Your task to perform on an android device: turn off javascript in the chrome app Image 0: 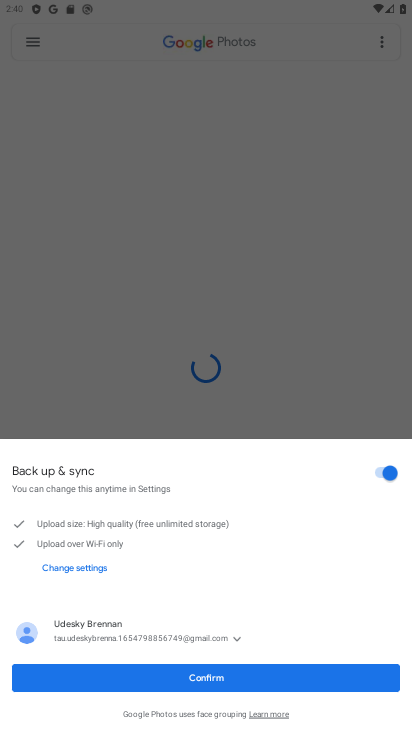
Step 0: press home button
Your task to perform on an android device: turn off javascript in the chrome app Image 1: 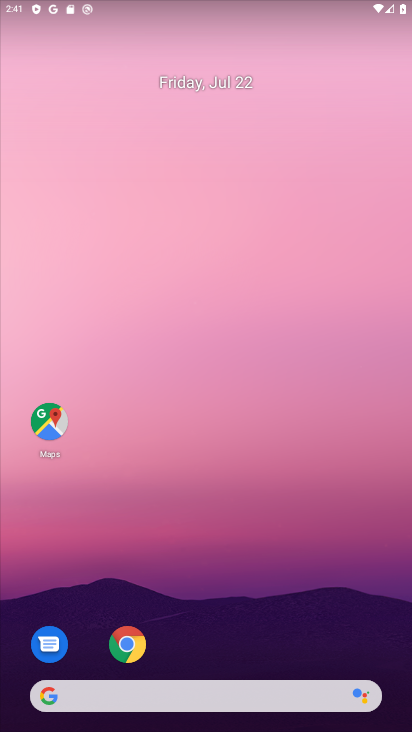
Step 1: click (130, 651)
Your task to perform on an android device: turn off javascript in the chrome app Image 2: 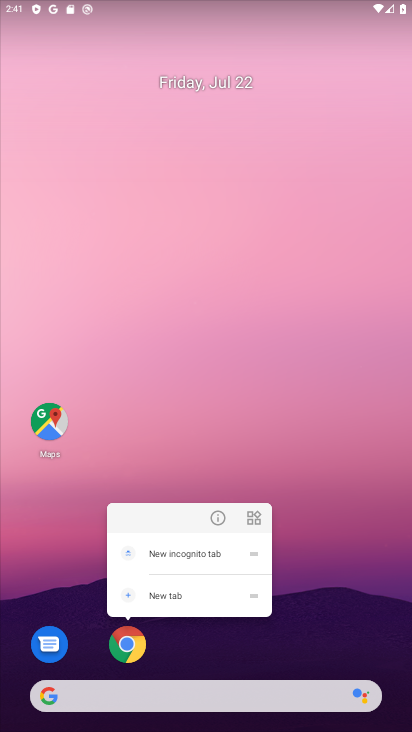
Step 2: click (130, 651)
Your task to perform on an android device: turn off javascript in the chrome app Image 3: 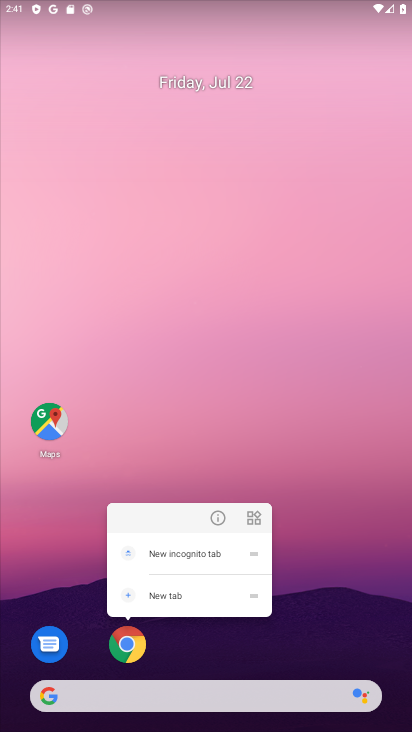
Step 3: click (130, 647)
Your task to perform on an android device: turn off javascript in the chrome app Image 4: 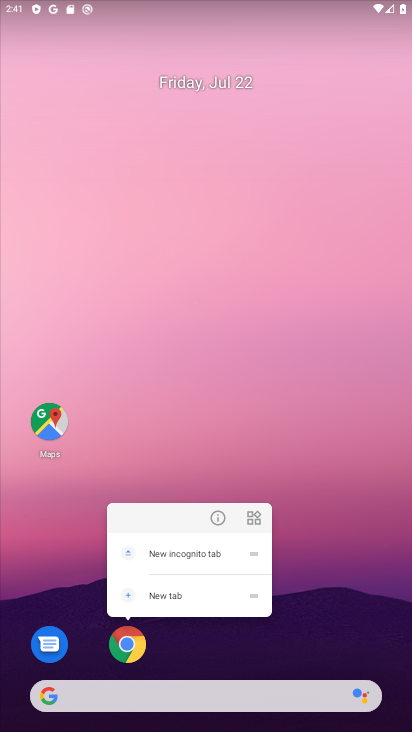
Step 4: click (130, 647)
Your task to perform on an android device: turn off javascript in the chrome app Image 5: 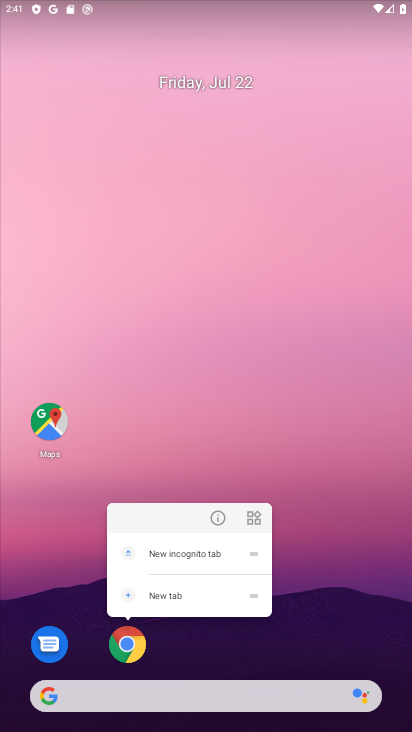
Step 5: click (125, 646)
Your task to perform on an android device: turn off javascript in the chrome app Image 6: 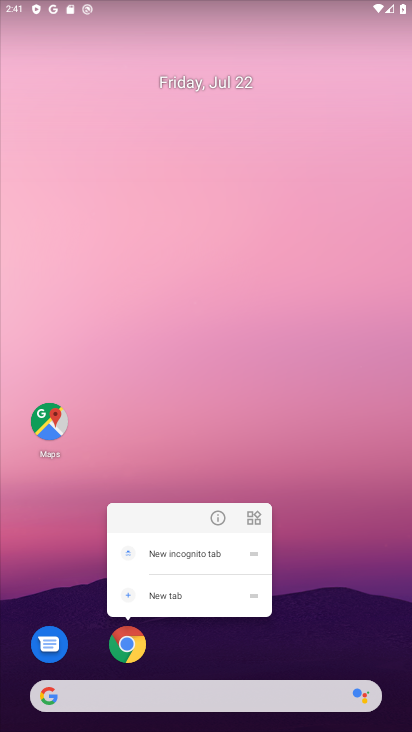
Step 6: click (135, 651)
Your task to perform on an android device: turn off javascript in the chrome app Image 7: 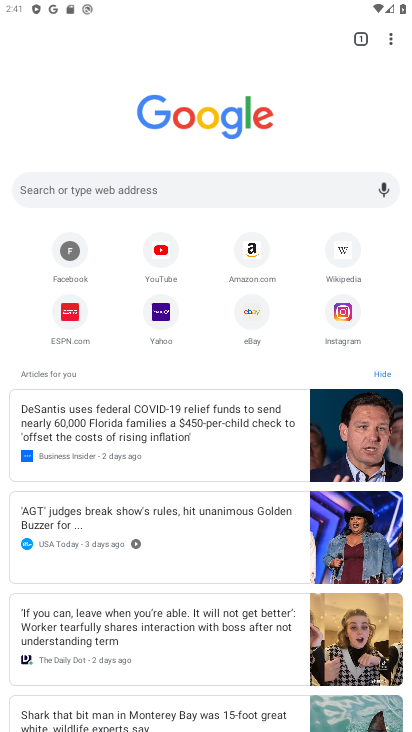
Step 7: click (394, 37)
Your task to perform on an android device: turn off javascript in the chrome app Image 8: 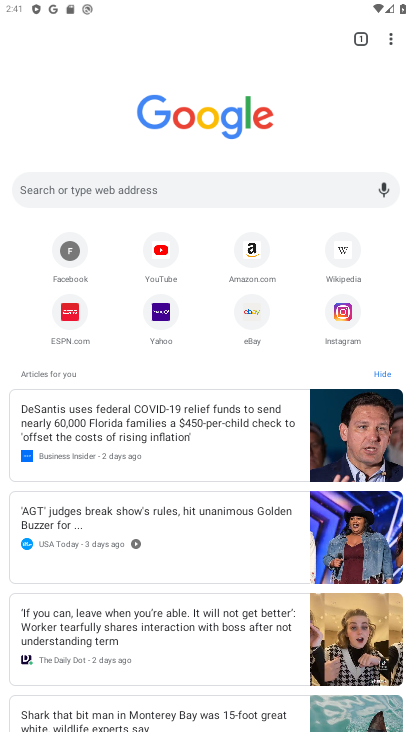
Step 8: click (396, 46)
Your task to perform on an android device: turn off javascript in the chrome app Image 9: 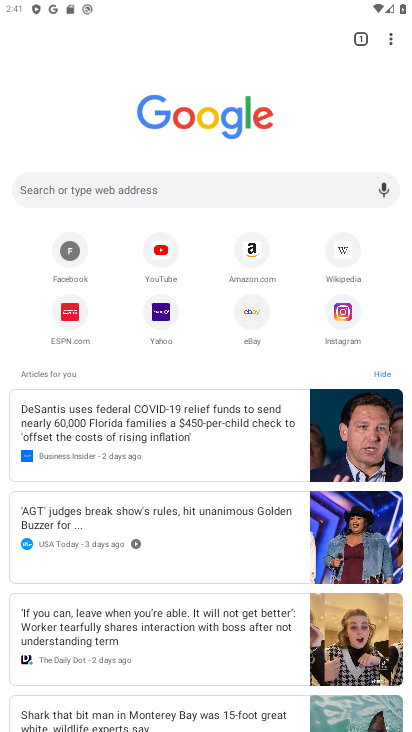
Step 9: click (398, 50)
Your task to perform on an android device: turn off javascript in the chrome app Image 10: 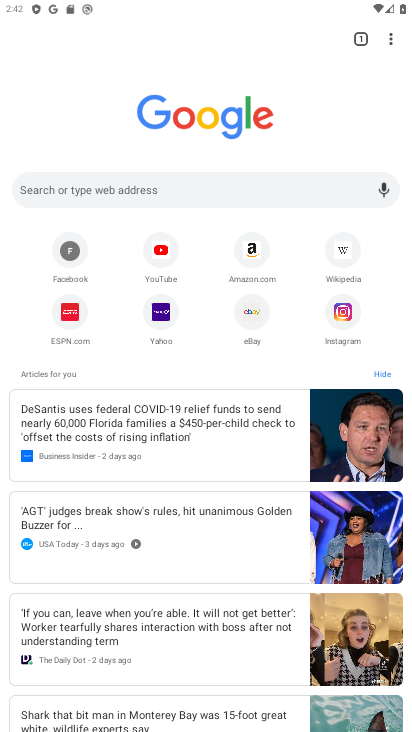
Step 10: click (400, 47)
Your task to perform on an android device: turn off javascript in the chrome app Image 11: 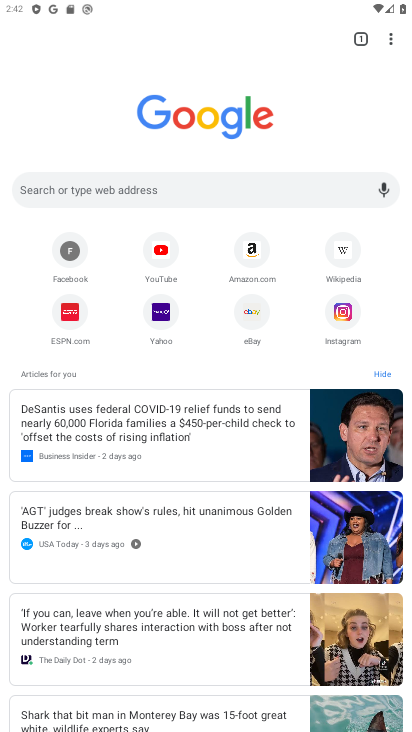
Step 11: task complete